Your task to perform on an android device: What's on my calendar tomorrow? Image 0: 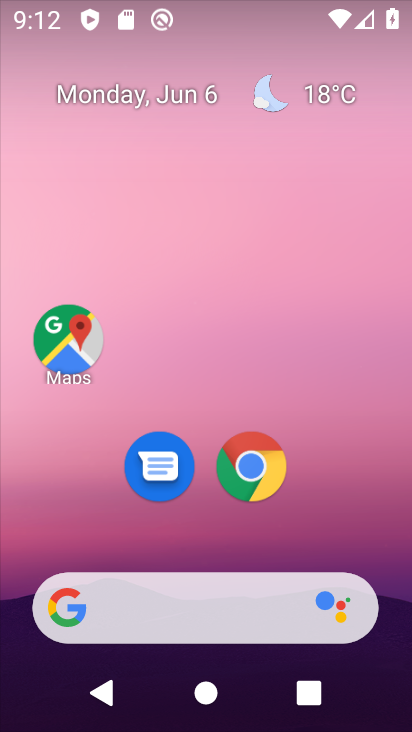
Step 0: drag from (195, 552) to (196, 92)
Your task to perform on an android device: What's on my calendar tomorrow? Image 1: 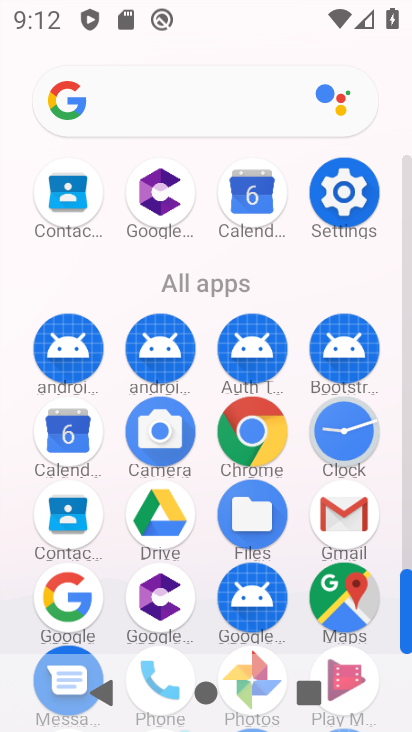
Step 1: click (345, 451)
Your task to perform on an android device: What's on my calendar tomorrow? Image 2: 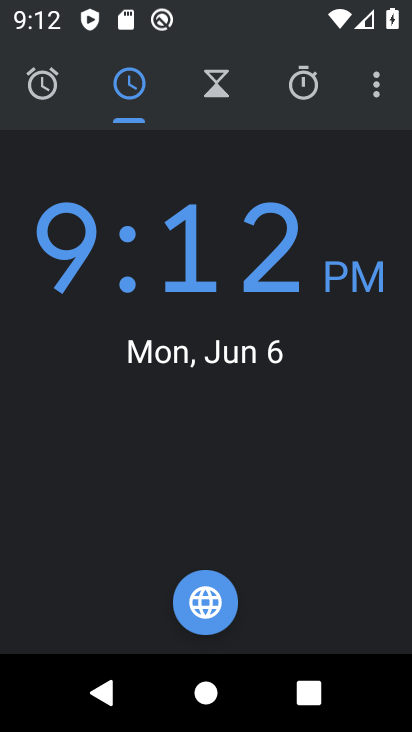
Step 2: click (376, 92)
Your task to perform on an android device: What's on my calendar tomorrow? Image 3: 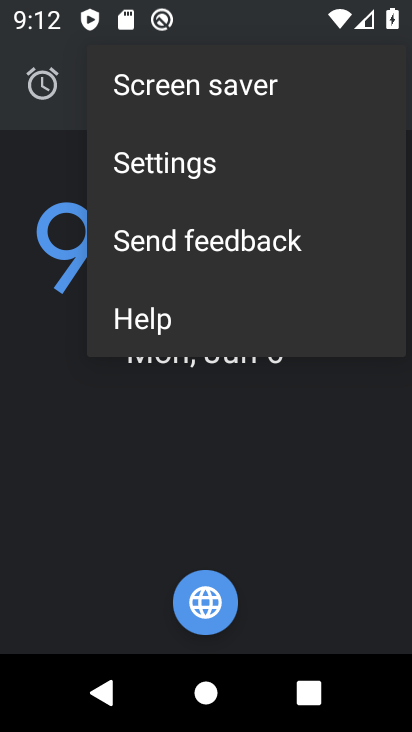
Step 3: click (234, 174)
Your task to perform on an android device: What's on my calendar tomorrow? Image 4: 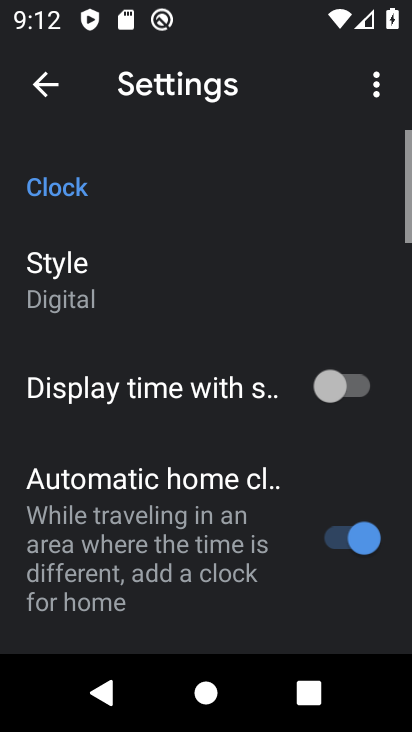
Step 4: press back button
Your task to perform on an android device: What's on my calendar tomorrow? Image 5: 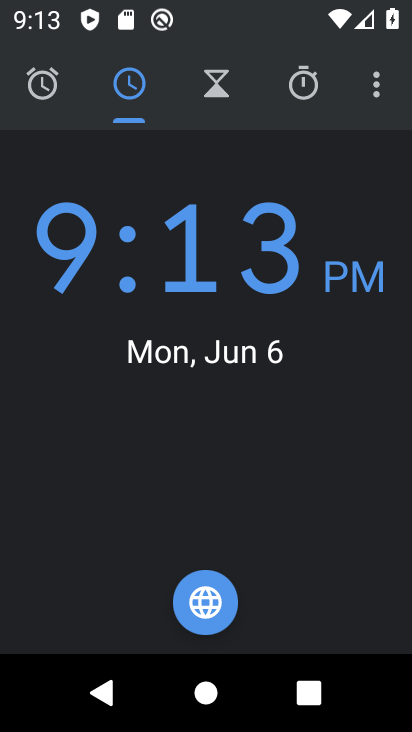
Step 5: press home button
Your task to perform on an android device: What's on my calendar tomorrow? Image 6: 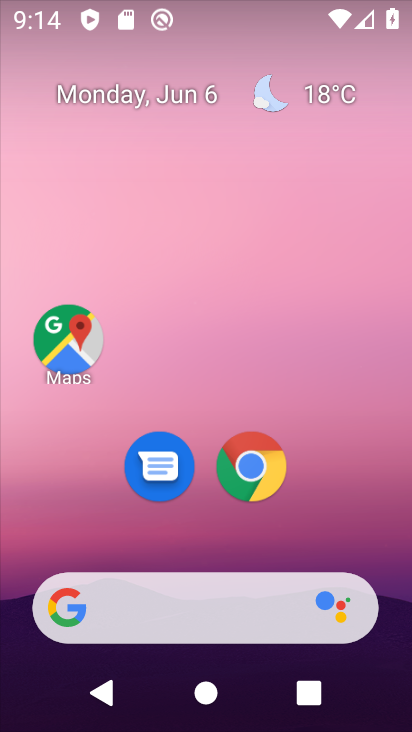
Step 6: drag from (212, 544) to (194, 198)
Your task to perform on an android device: What's on my calendar tomorrow? Image 7: 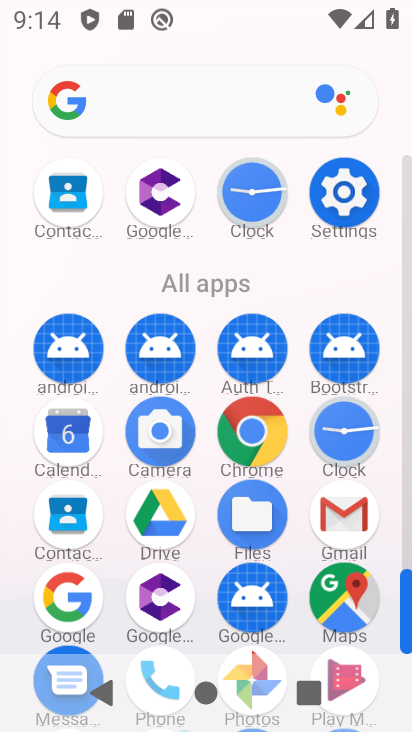
Step 7: click (68, 444)
Your task to perform on an android device: What's on my calendar tomorrow? Image 8: 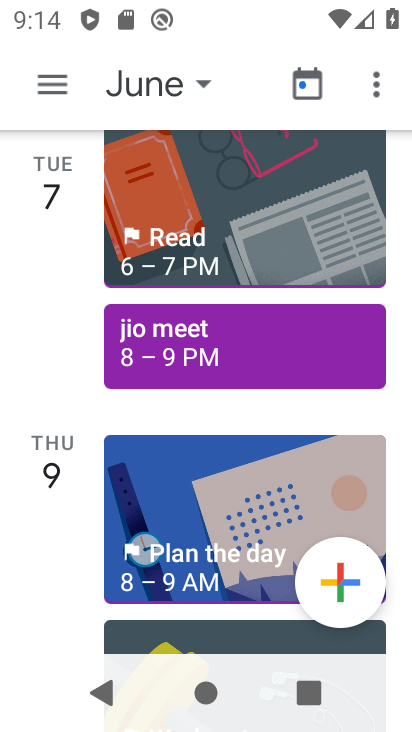
Step 8: task complete